Your task to perform on an android device: Search for vegetarian restaurants on Maps Image 0: 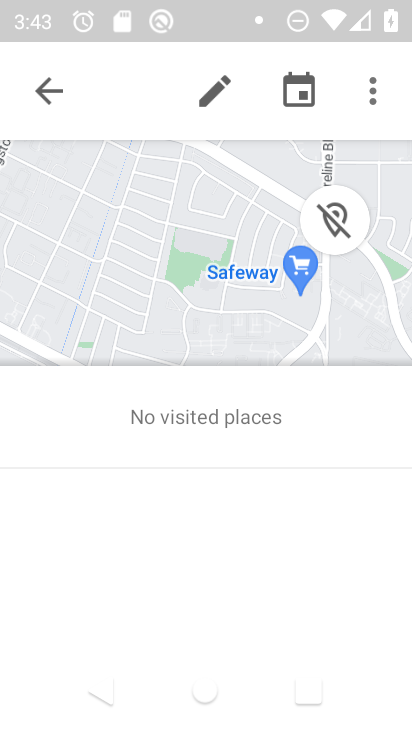
Step 0: click (49, 93)
Your task to perform on an android device: Search for vegetarian restaurants on Maps Image 1: 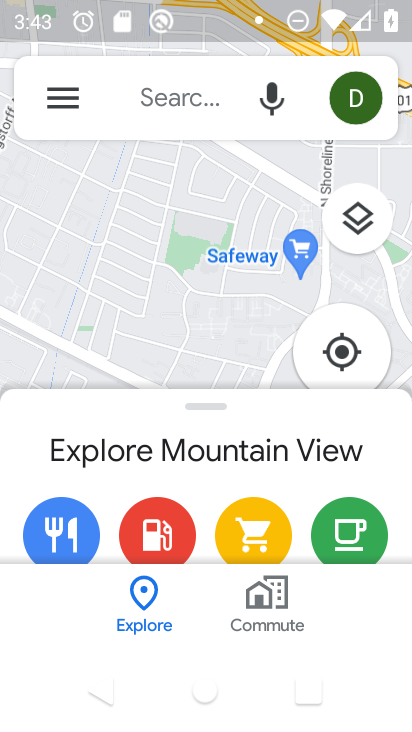
Step 1: click (149, 96)
Your task to perform on an android device: Search for vegetarian restaurants on Maps Image 2: 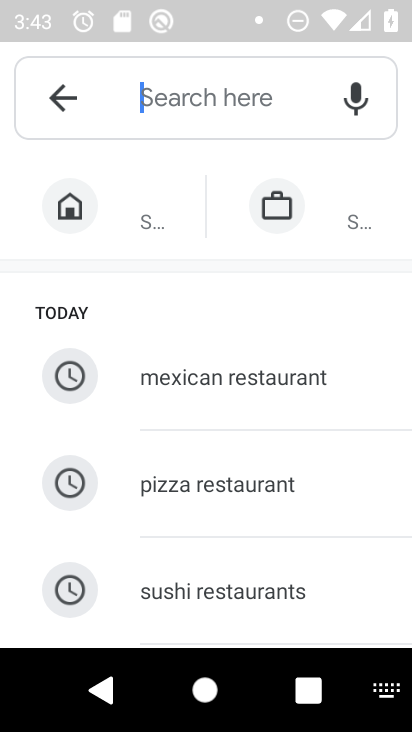
Step 2: type "vegetarian restaurant"
Your task to perform on an android device: Search for vegetarian restaurants on Maps Image 3: 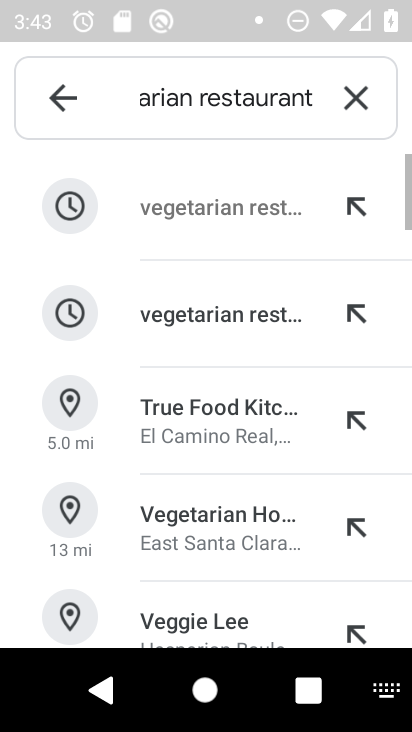
Step 3: click (192, 202)
Your task to perform on an android device: Search for vegetarian restaurants on Maps Image 4: 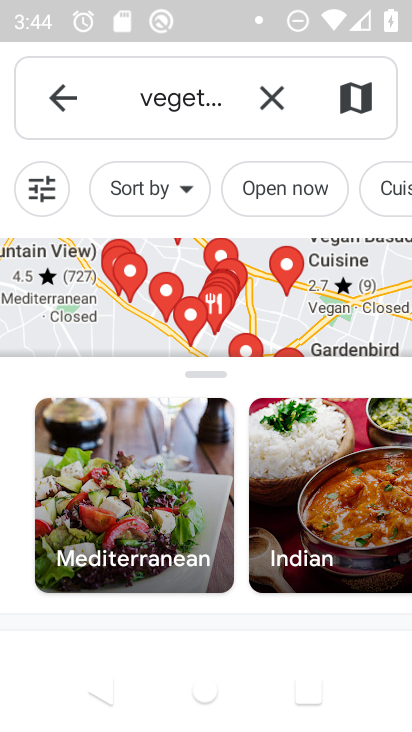
Step 4: task complete